Your task to perform on an android device: snooze an email in the gmail app Image 0: 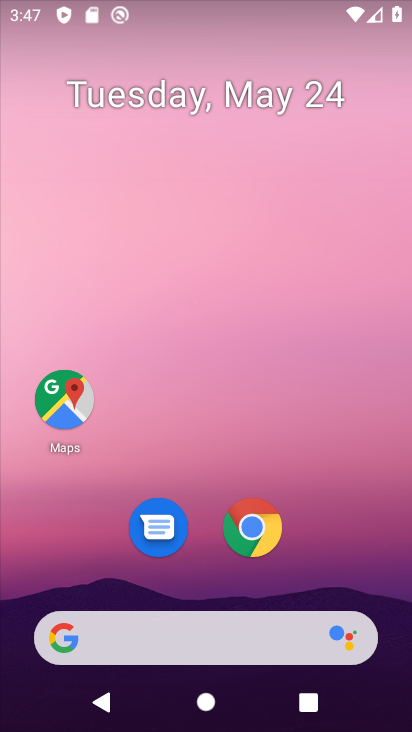
Step 0: drag from (249, 659) to (293, 109)
Your task to perform on an android device: snooze an email in the gmail app Image 1: 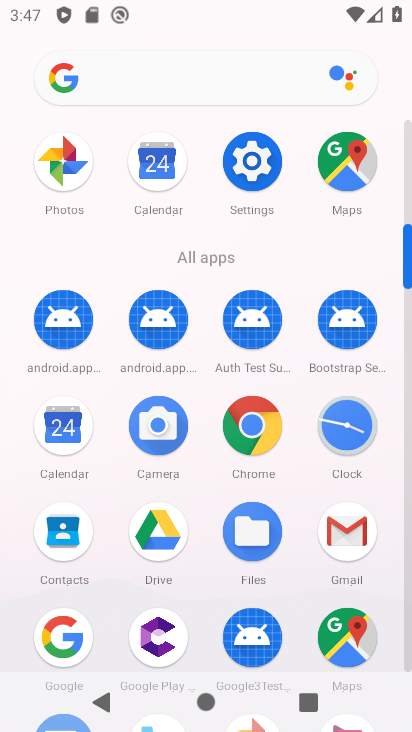
Step 1: click (349, 535)
Your task to perform on an android device: snooze an email in the gmail app Image 2: 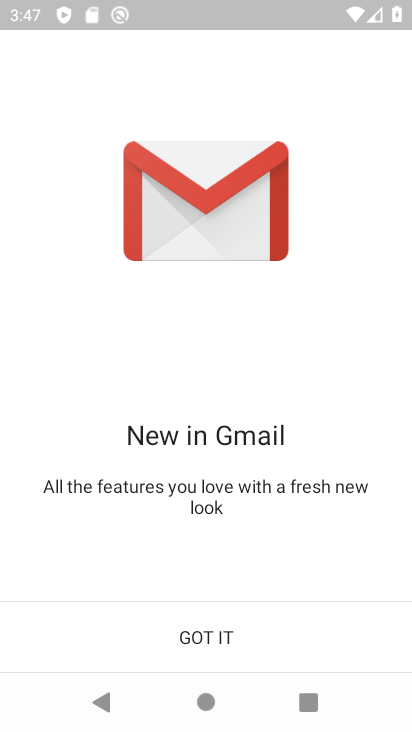
Step 2: click (227, 632)
Your task to perform on an android device: snooze an email in the gmail app Image 3: 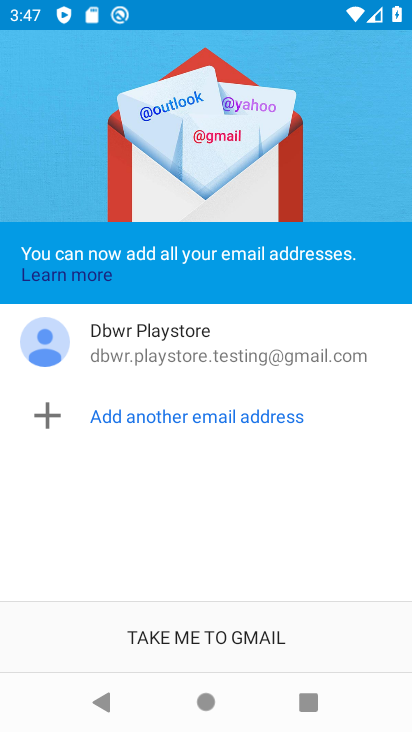
Step 3: click (191, 642)
Your task to perform on an android device: snooze an email in the gmail app Image 4: 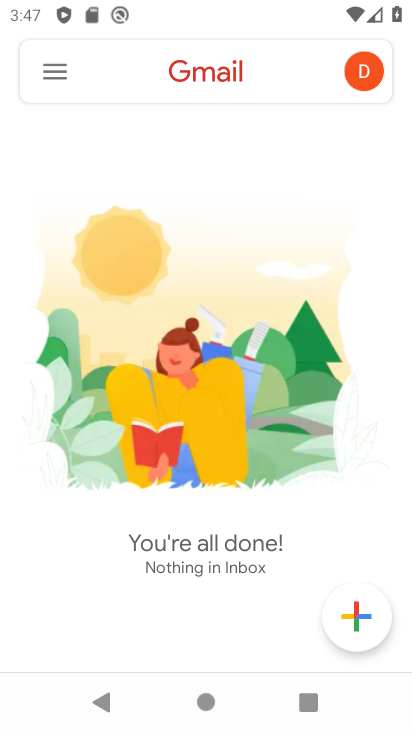
Step 4: click (52, 67)
Your task to perform on an android device: snooze an email in the gmail app Image 5: 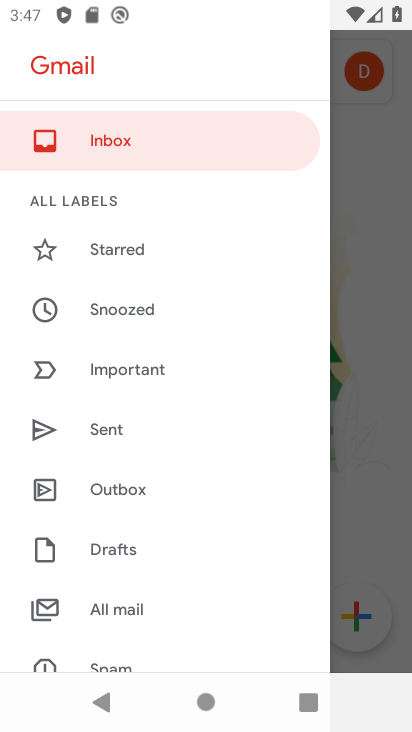
Step 5: click (149, 315)
Your task to perform on an android device: snooze an email in the gmail app Image 6: 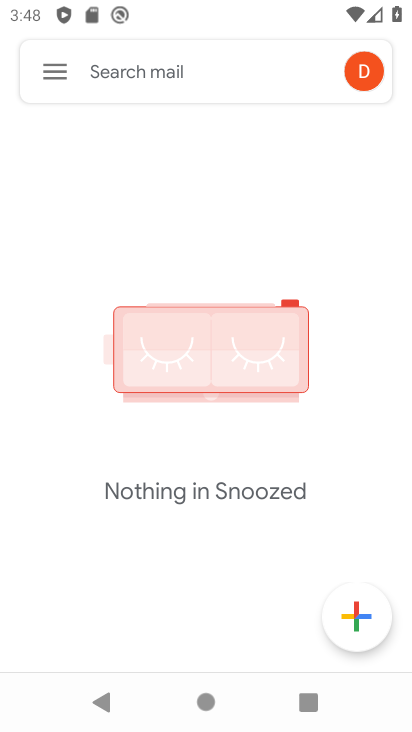
Step 6: task complete